Your task to perform on an android device: change the clock display to analog Image 0: 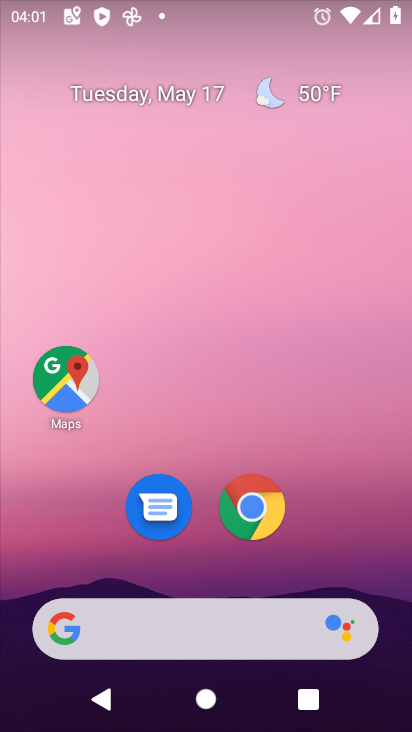
Step 0: drag from (313, 584) to (246, 73)
Your task to perform on an android device: change the clock display to analog Image 1: 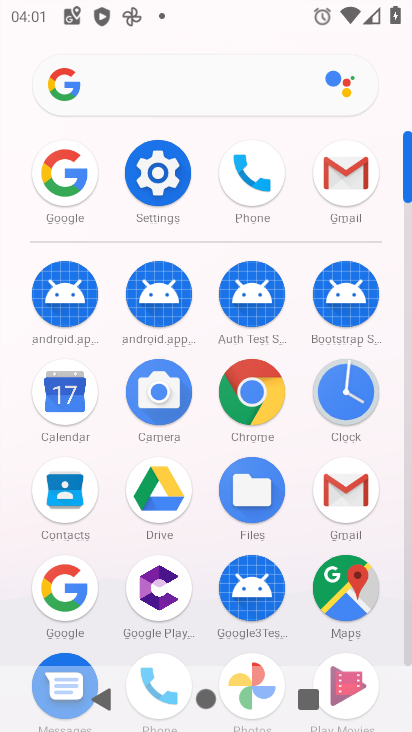
Step 1: click (353, 398)
Your task to perform on an android device: change the clock display to analog Image 2: 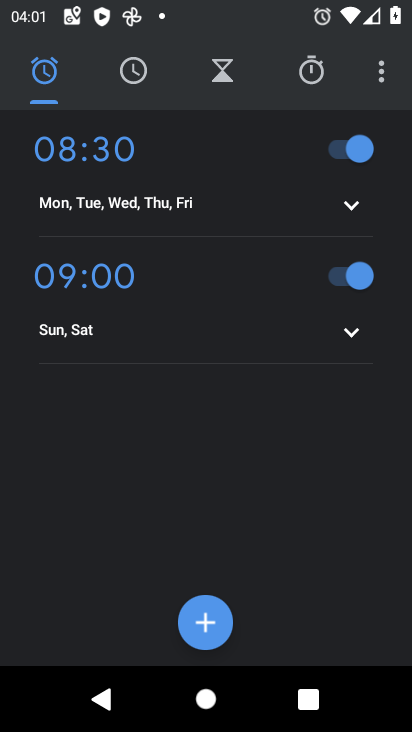
Step 2: click (372, 76)
Your task to perform on an android device: change the clock display to analog Image 3: 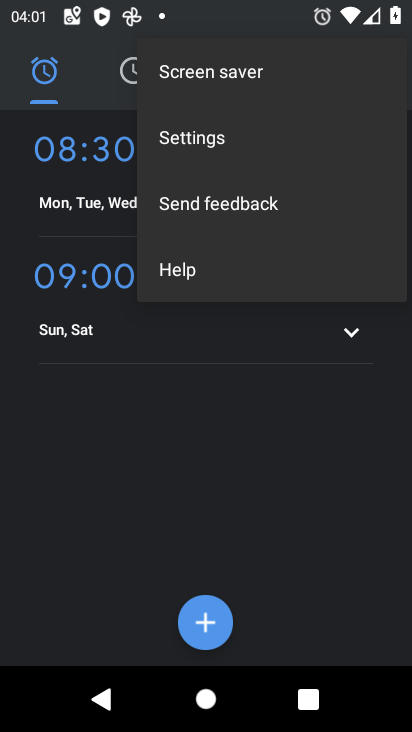
Step 3: click (212, 140)
Your task to perform on an android device: change the clock display to analog Image 4: 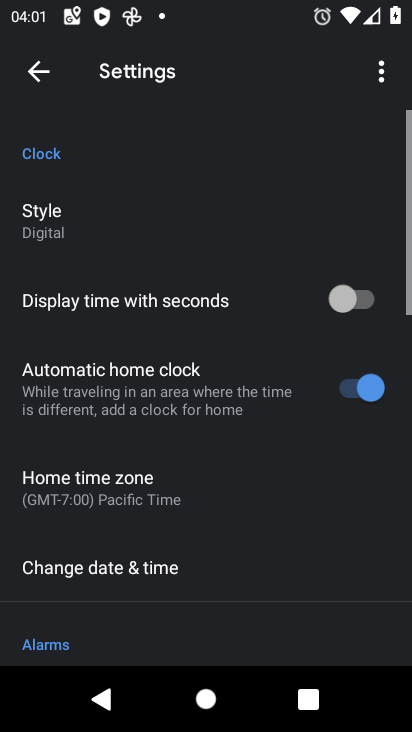
Step 4: click (140, 225)
Your task to perform on an android device: change the clock display to analog Image 5: 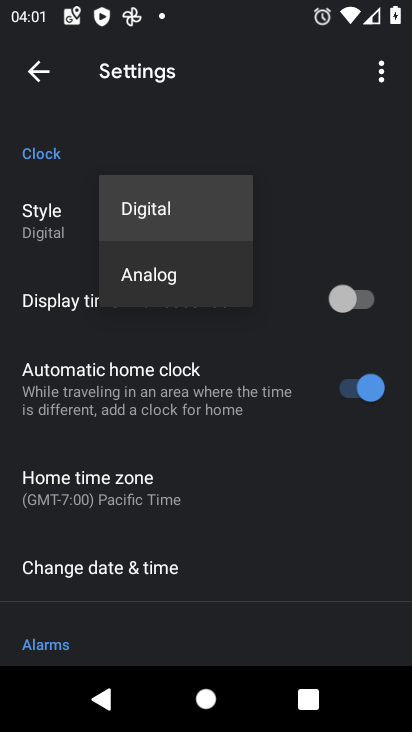
Step 5: click (143, 275)
Your task to perform on an android device: change the clock display to analog Image 6: 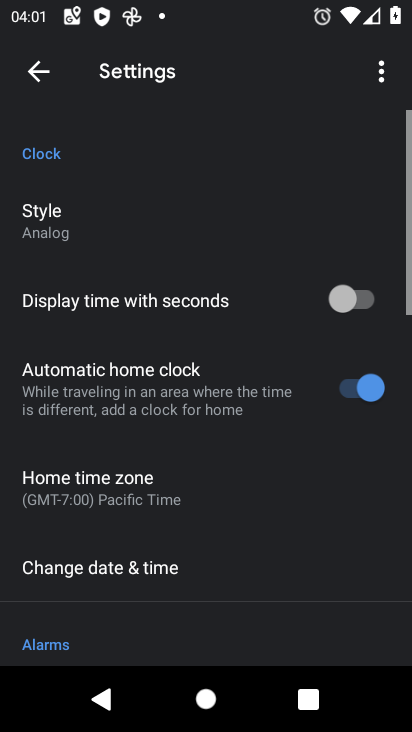
Step 6: task complete